Your task to perform on an android device: Go to Android settings Image 0: 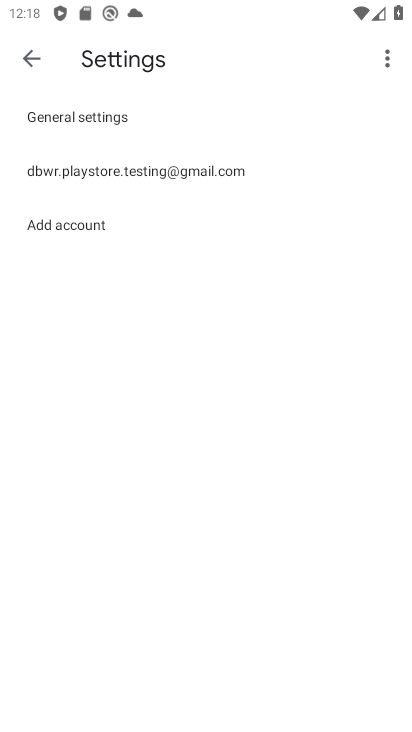
Step 0: press home button
Your task to perform on an android device: Go to Android settings Image 1: 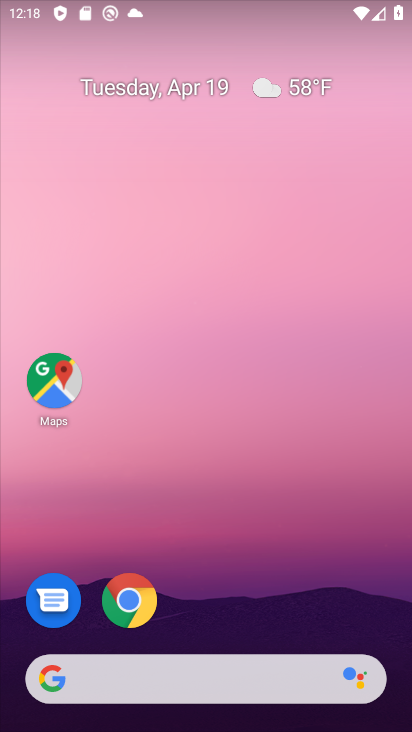
Step 1: drag from (279, 627) to (150, 58)
Your task to perform on an android device: Go to Android settings Image 2: 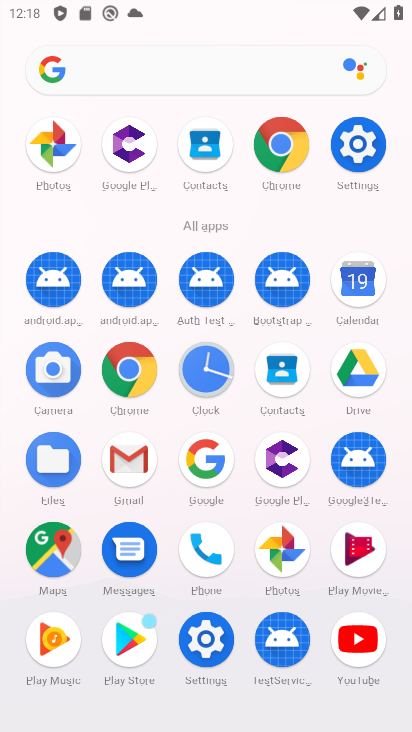
Step 2: click (365, 164)
Your task to perform on an android device: Go to Android settings Image 3: 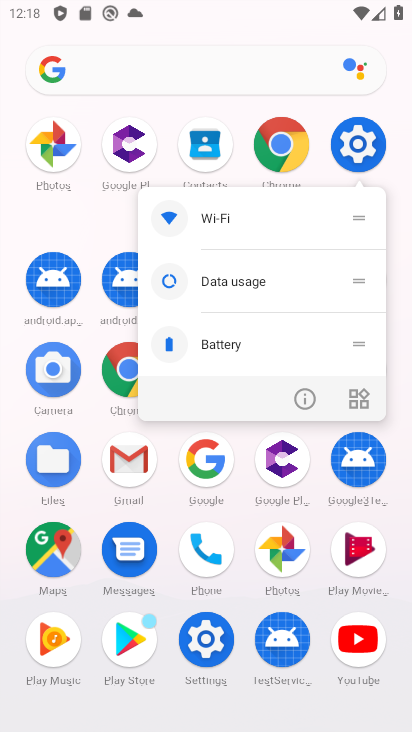
Step 3: click (360, 153)
Your task to perform on an android device: Go to Android settings Image 4: 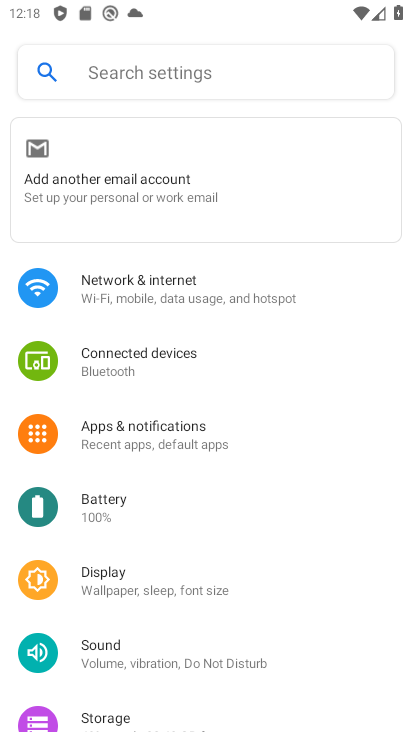
Step 4: drag from (269, 589) to (229, 211)
Your task to perform on an android device: Go to Android settings Image 5: 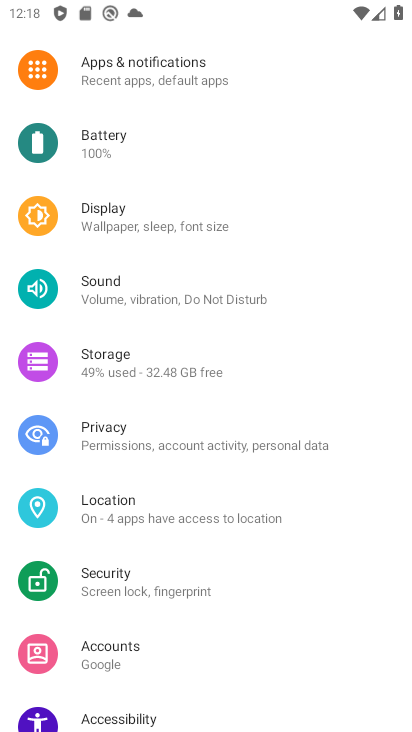
Step 5: drag from (275, 677) to (229, 201)
Your task to perform on an android device: Go to Android settings Image 6: 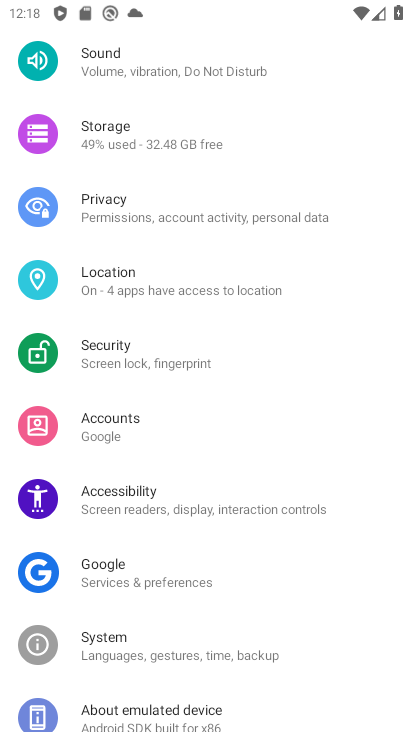
Step 6: click (277, 702)
Your task to perform on an android device: Go to Android settings Image 7: 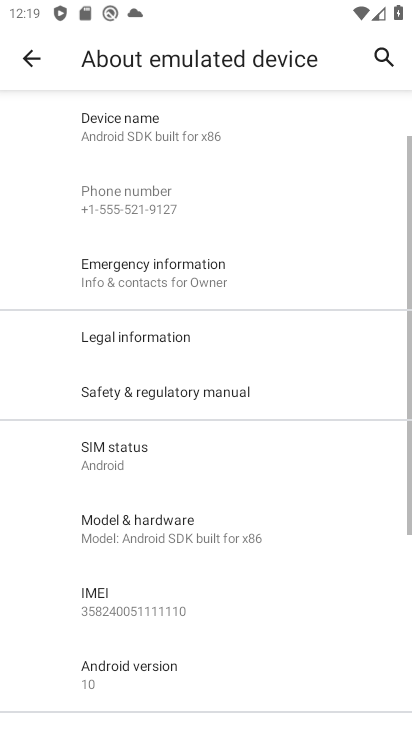
Step 7: drag from (286, 705) to (246, 478)
Your task to perform on an android device: Go to Android settings Image 8: 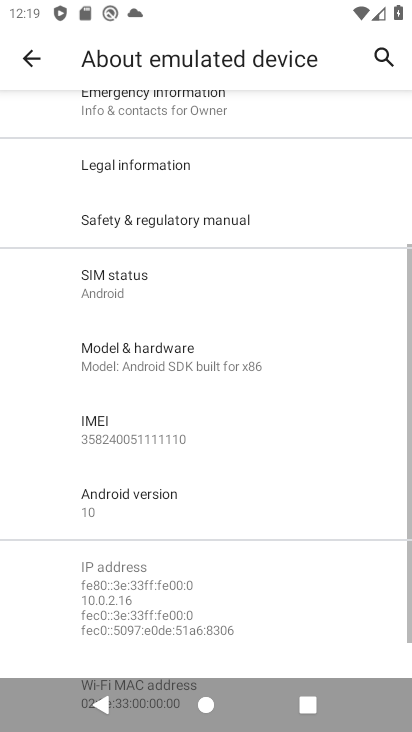
Step 8: click (244, 498)
Your task to perform on an android device: Go to Android settings Image 9: 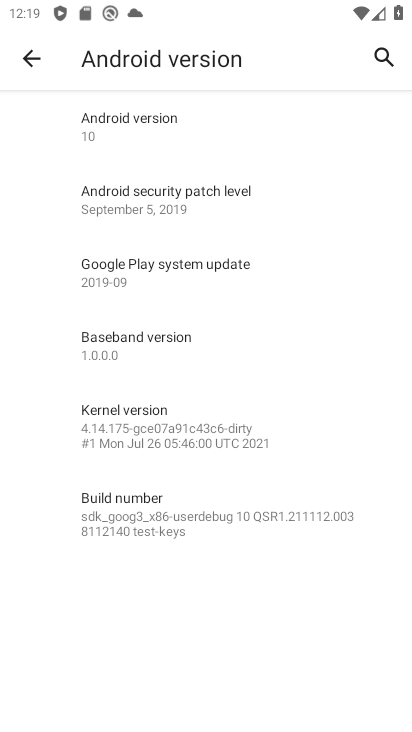
Step 9: task complete